Your task to perform on an android device: add a contact Image 0: 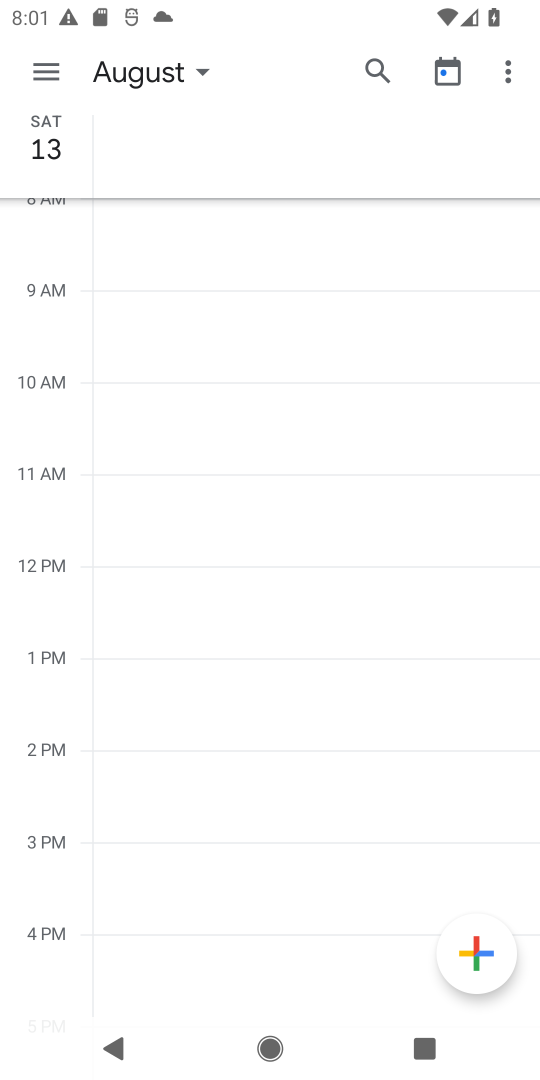
Step 0: press home button
Your task to perform on an android device: add a contact Image 1: 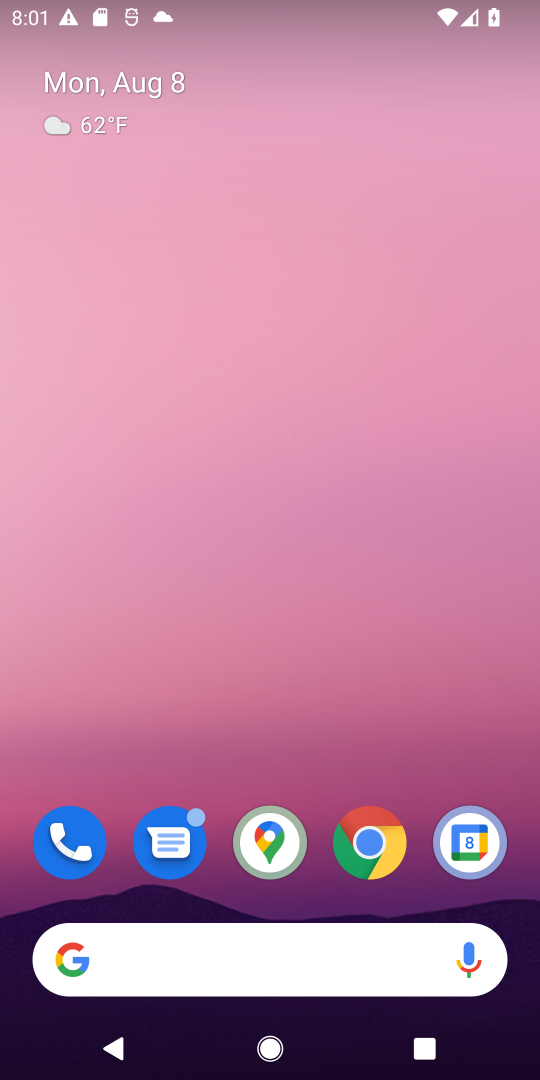
Step 1: drag from (252, 723) to (299, 0)
Your task to perform on an android device: add a contact Image 2: 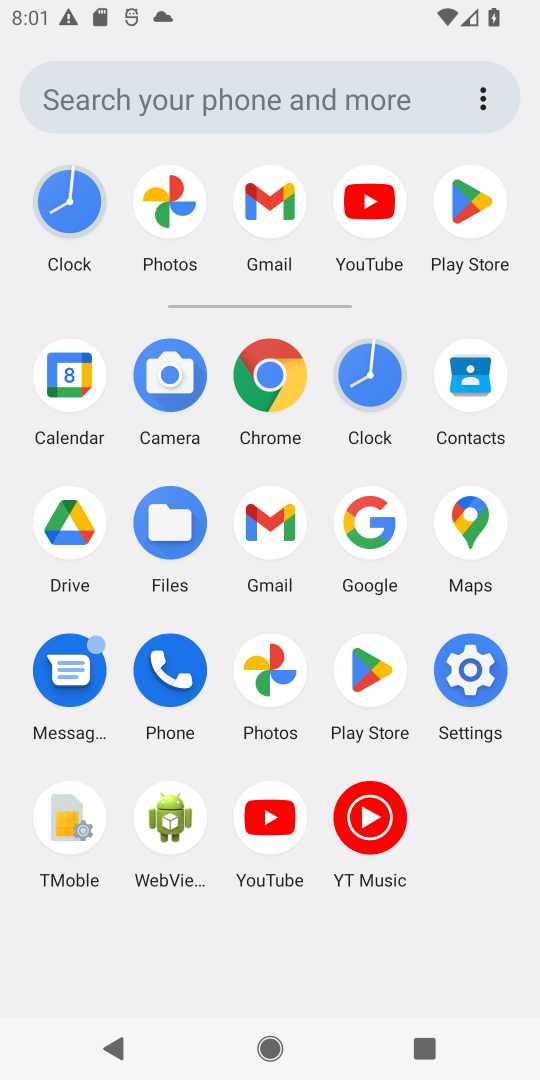
Step 2: click (473, 374)
Your task to perform on an android device: add a contact Image 3: 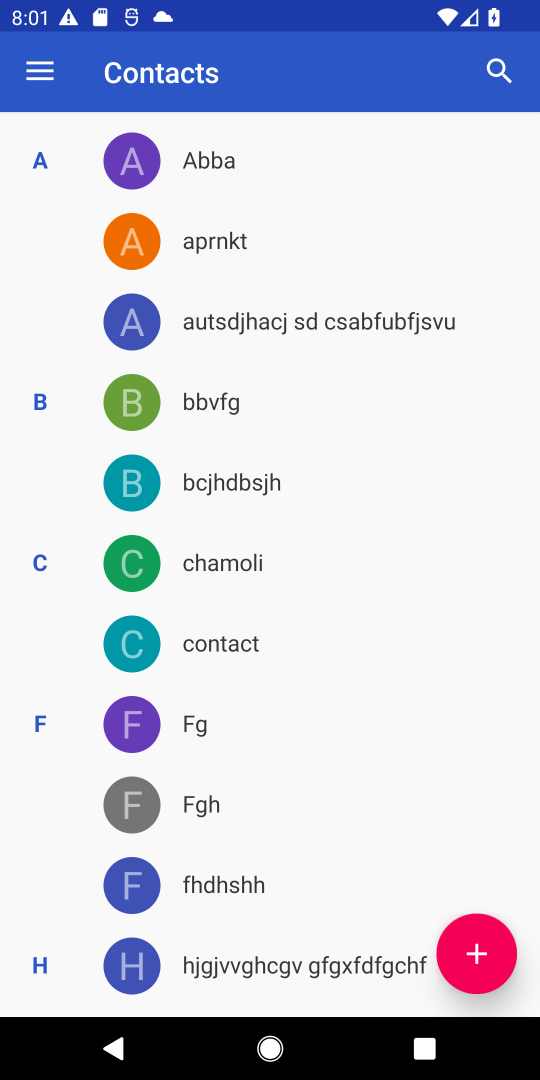
Step 3: click (469, 963)
Your task to perform on an android device: add a contact Image 4: 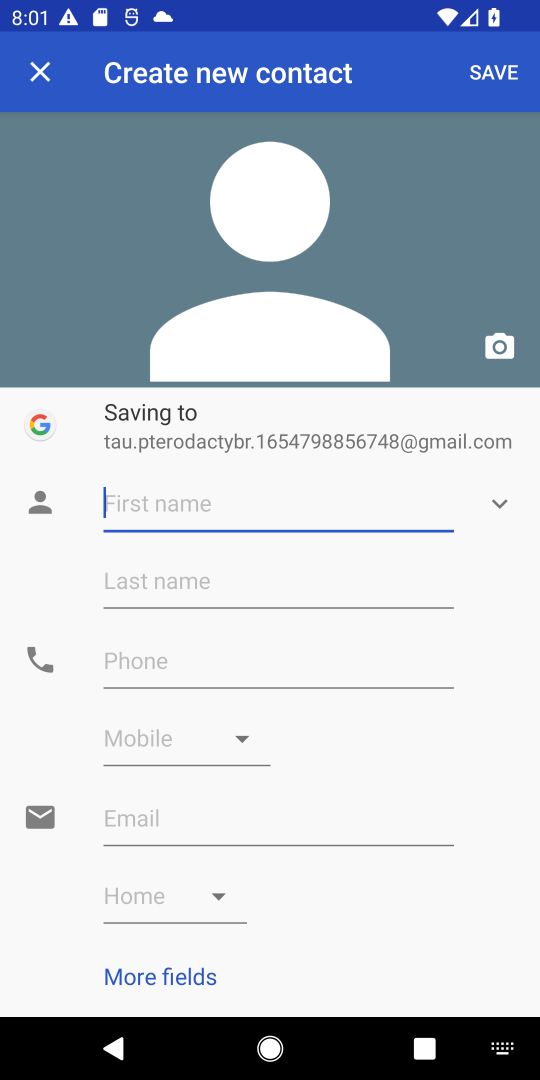
Step 4: type "Abha"
Your task to perform on an android device: add a contact Image 5: 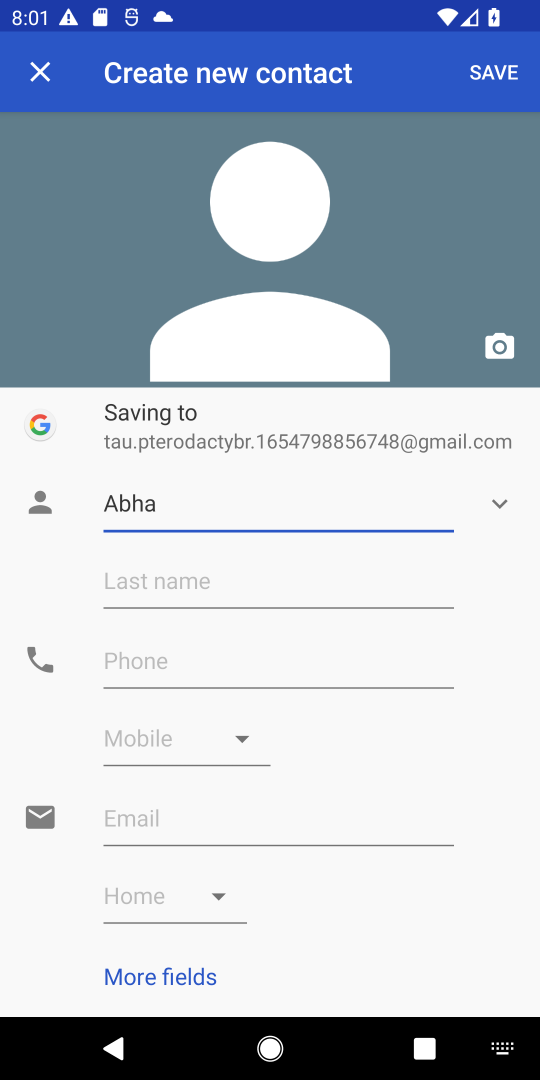
Step 5: click (294, 673)
Your task to perform on an android device: add a contact Image 6: 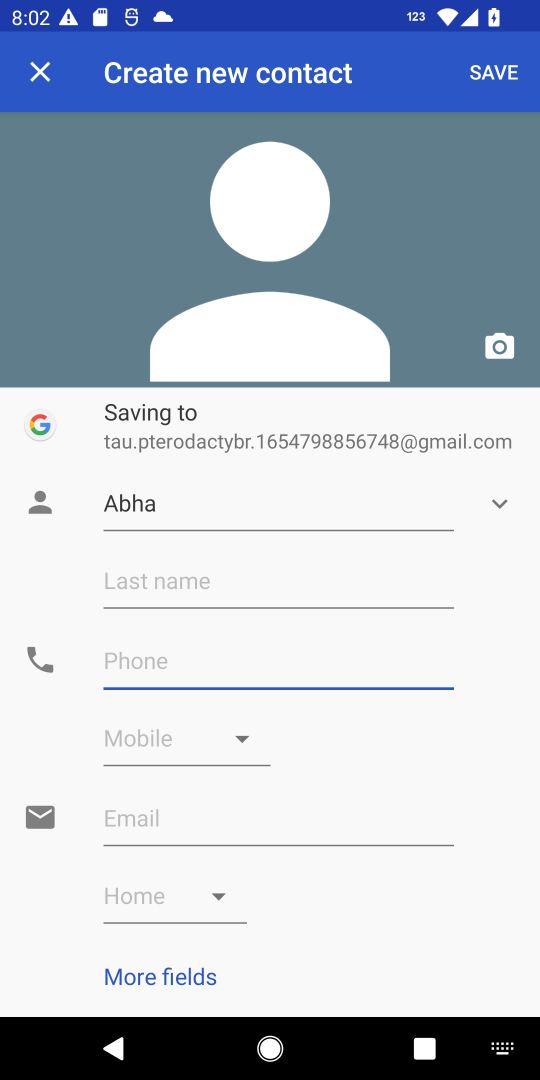
Step 6: type "+919999775533"
Your task to perform on an android device: add a contact Image 7: 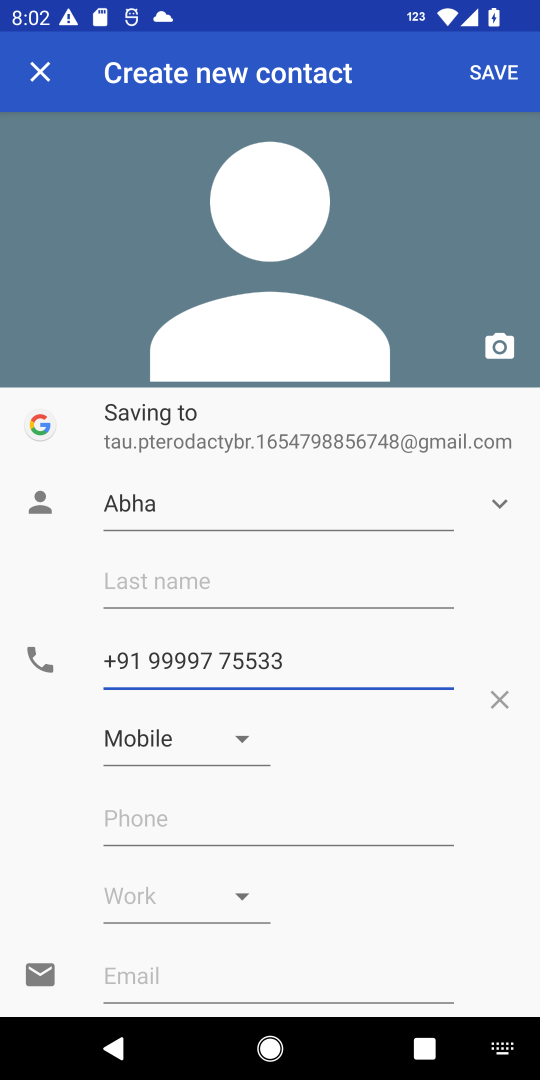
Step 7: click (488, 76)
Your task to perform on an android device: add a contact Image 8: 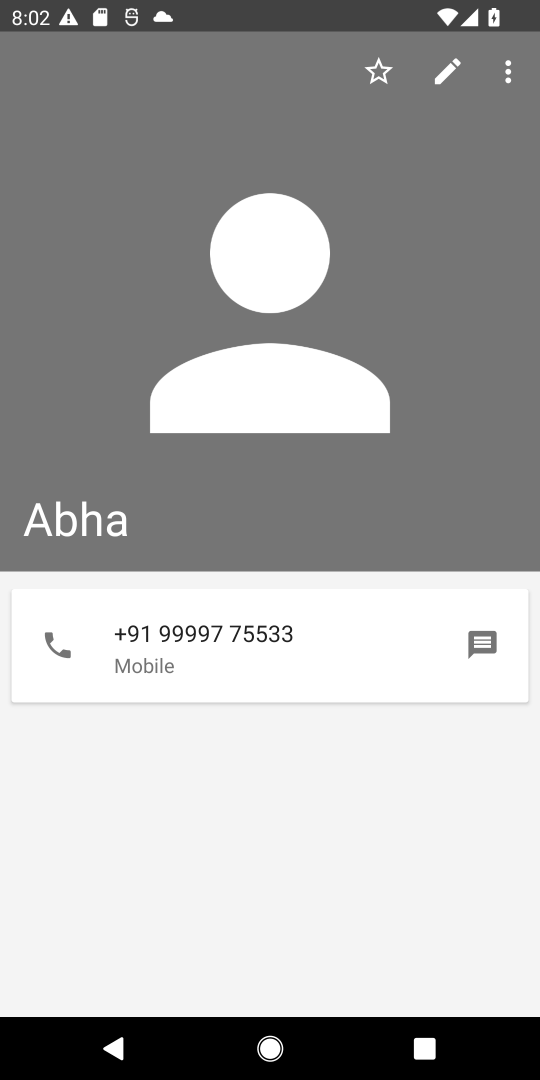
Step 8: task complete